Your task to perform on an android device: search for starred emails in the gmail app Image 0: 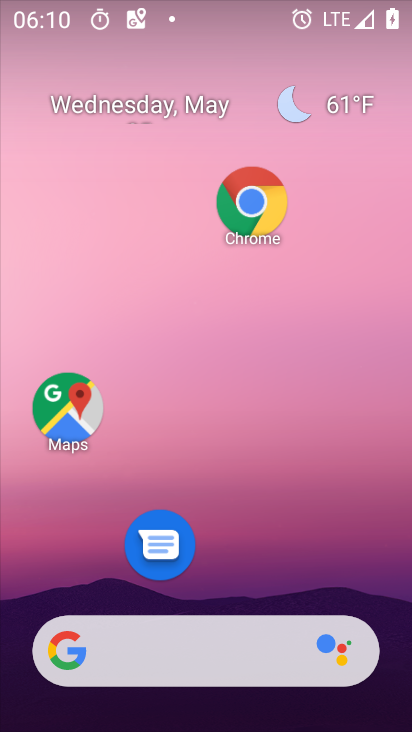
Step 0: drag from (200, 619) to (196, 64)
Your task to perform on an android device: search for starred emails in the gmail app Image 1: 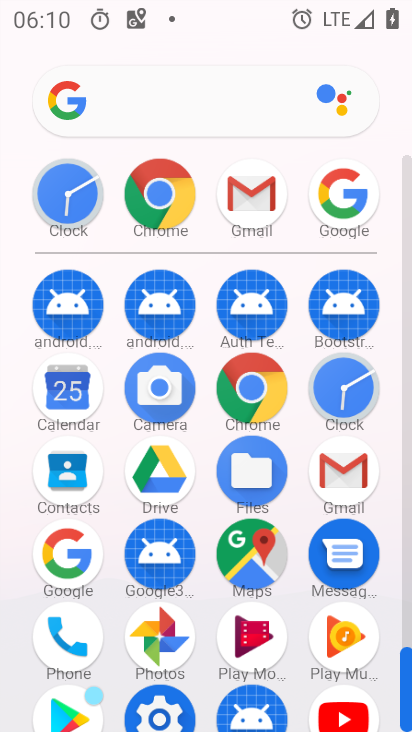
Step 1: click (329, 483)
Your task to perform on an android device: search for starred emails in the gmail app Image 2: 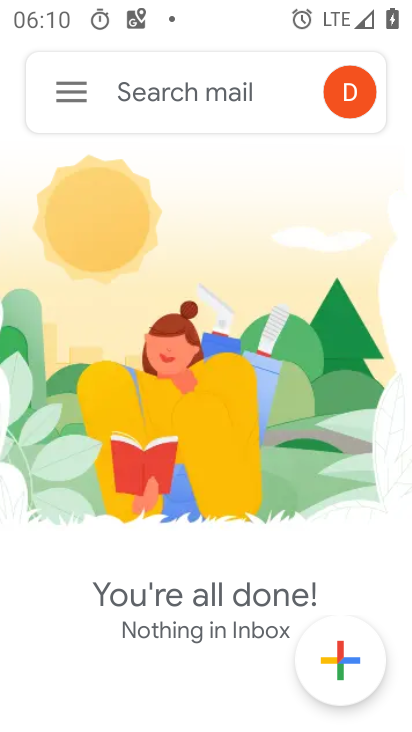
Step 2: click (74, 92)
Your task to perform on an android device: search for starred emails in the gmail app Image 3: 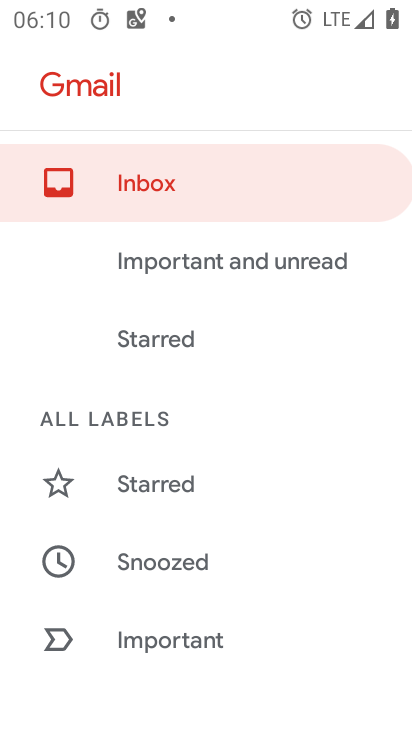
Step 3: click (156, 360)
Your task to perform on an android device: search for starred emails in the gmail app Image 4: 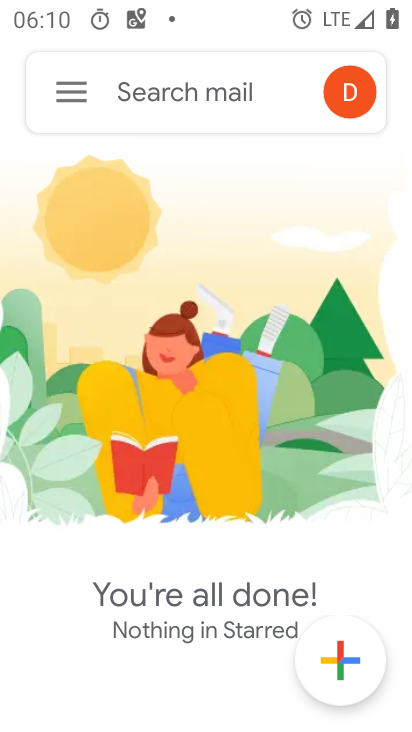
Step 4: task complete